Your task to perform on an android device: toggle pop-ups in chrome Image 0: 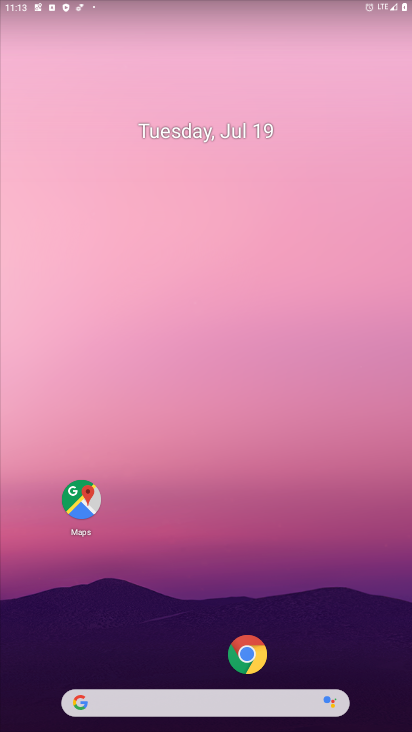
Step 0: click (253, 664)
Your task to perform on an android device: toggle pop-ups in chrome Image 1: 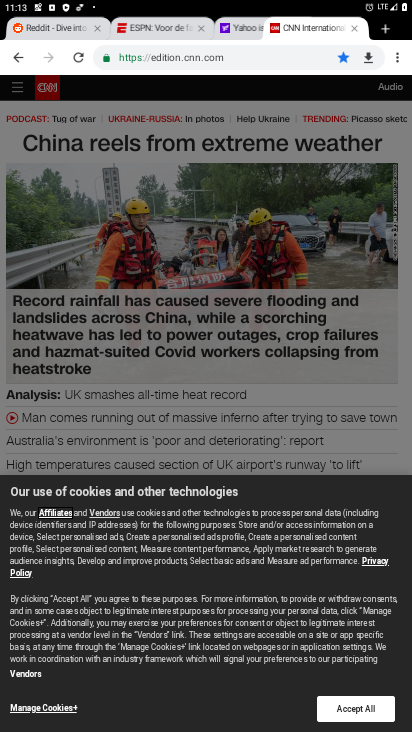
Step 1: click (404, 60)
Your task to perform on an android device: toggle pop-ups in chrome Image 2: 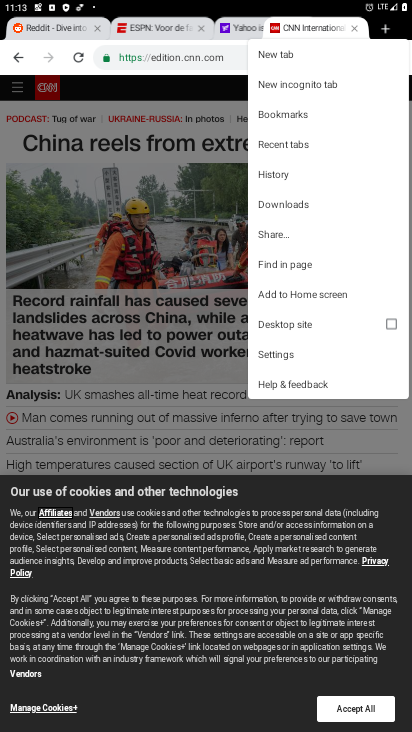
Step 2: click (281, 358)
Your task to perform on an android device: toggle pop-ups in chrome Image 3: 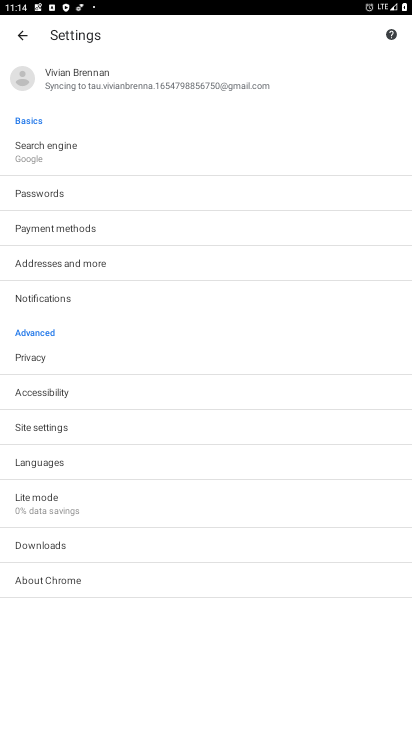
Step 3: click (78, 437)
Your task to perform on an android device: toggle pop-ups in chrome Image 4: 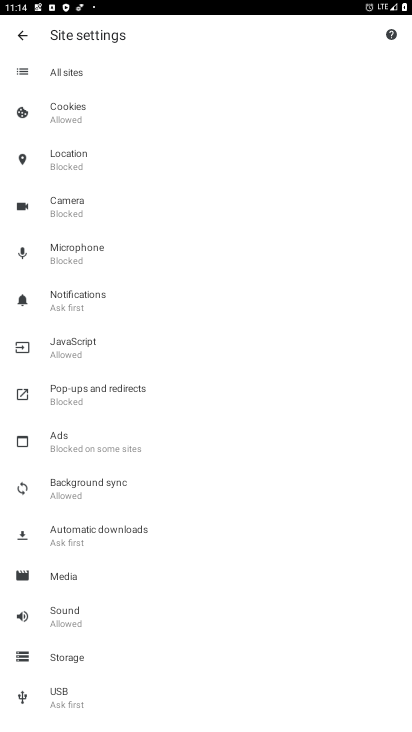
Step 4: click (113, 405)
Your task to perform on an android device: toggle pop-ups in chrome Image 5: 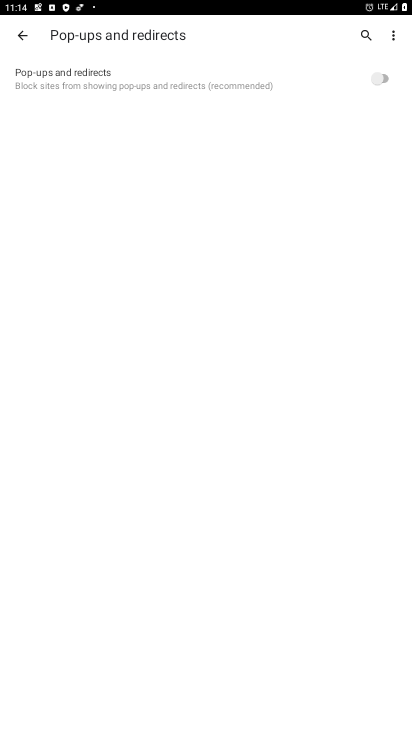
Step 5: click (386, 84)
Your task to perform on an android device: toggle pop-ups in chrome Image 6: 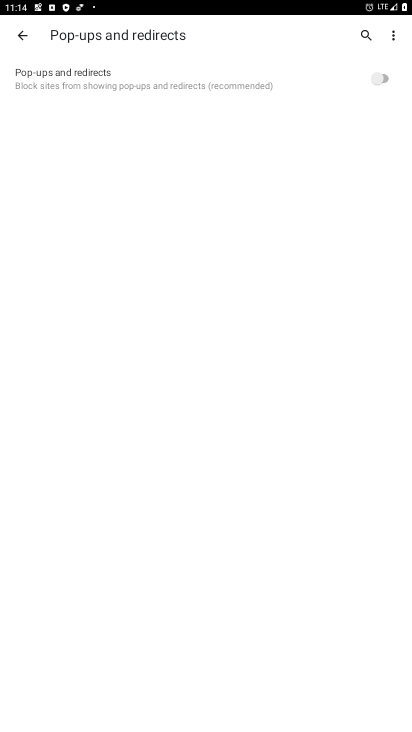
Step 6: click (386, 84)
Your task to perform on an android device: toggle pop-ups in chrome Image 7: 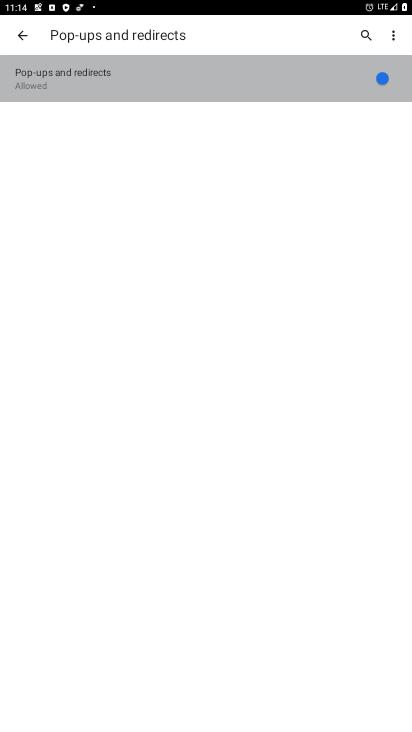
Step 7: click (386, 84)
Your task to perform on an android device: toggle pop-ups in chrome Image 8: 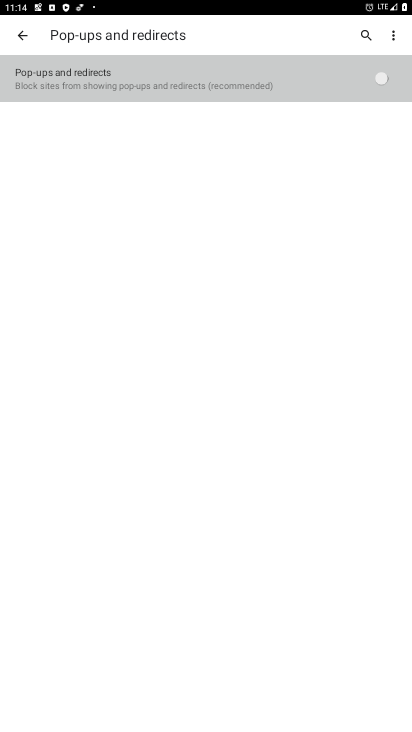
Step 8: click (386, 84)
Your task to perform on an android device: toggle pop-ups in chrome Image 9: 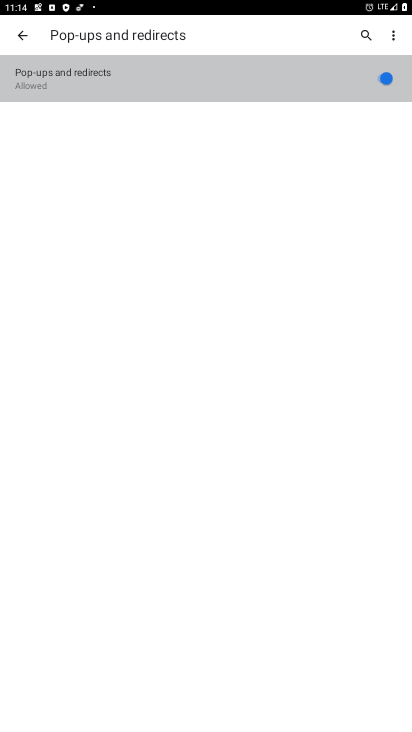
Step 9: click (386, 84)
Your task to perform on an android device: toggle pop-ups in chrome Image 10: 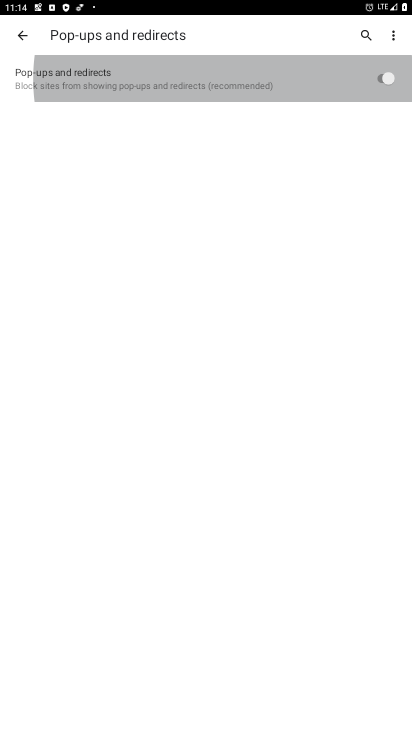
Step 10: click (386, 84)
Your task to perform on an android device: toggle pop-ups in chrome Image 11: 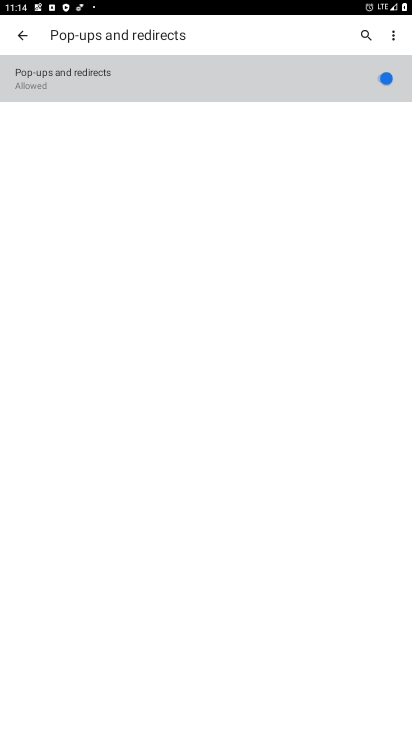
Step 11: click (386, 84)
Your task to perform on an android device: toggle pop-ups in chrome Image 12: 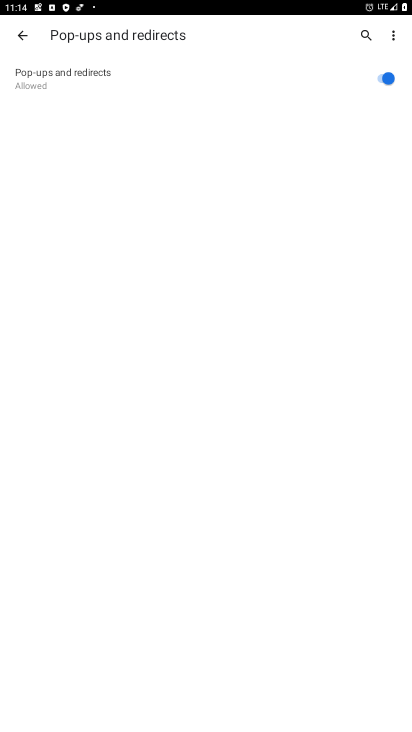
Step 12: click (386, 84)
Your task to perform on an android device: toggle pop-ups in chrome Image 13: 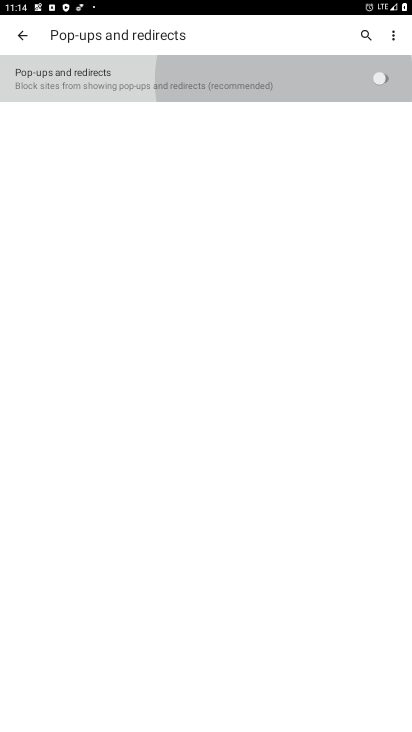
Step 13: click (386, 84)
Your task to perform on an android device: toggle pop-ups in chrome Image 14: 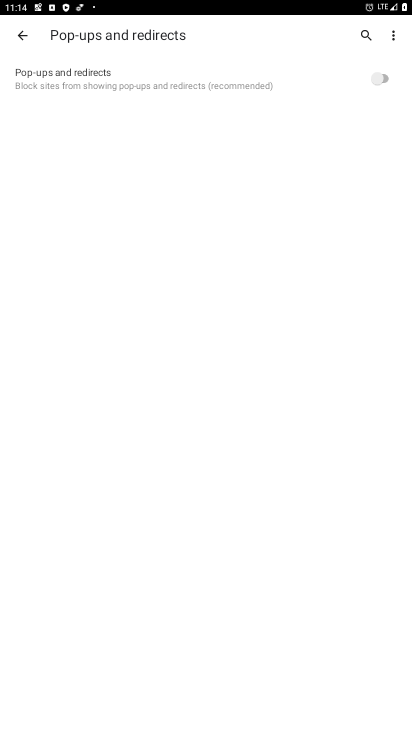
Step 14: task complete